Your task to perform on an android device: toggle translation in the chrome app Image 0: 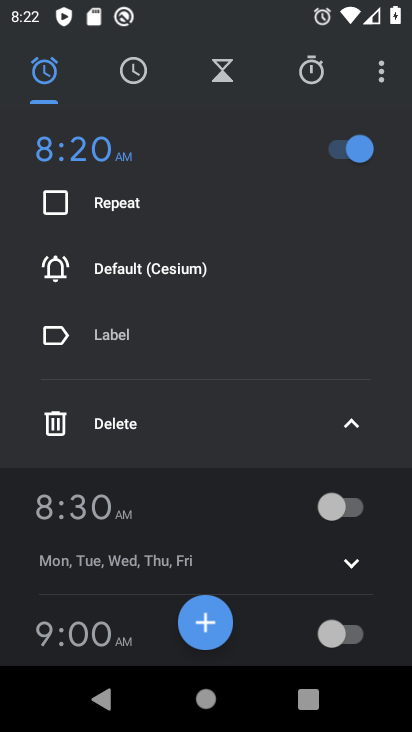
Step 0: press home button
Your task to perform on an android device: toggle translation in the chrome app Image 1: 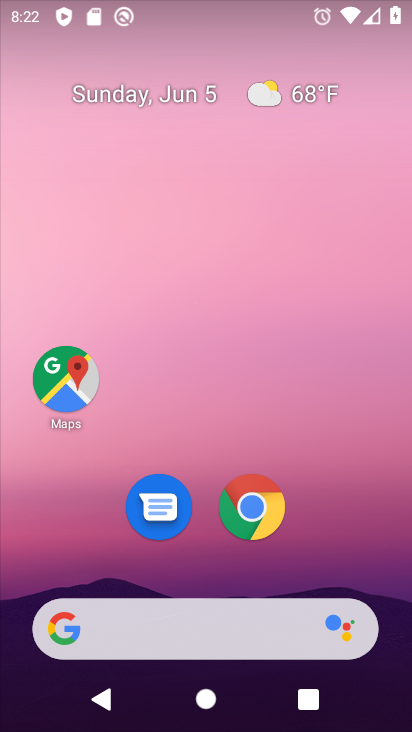
Step 1: click (255, 508)
Your task to perform on an android device: toggle translation in the chrome app Image 2: 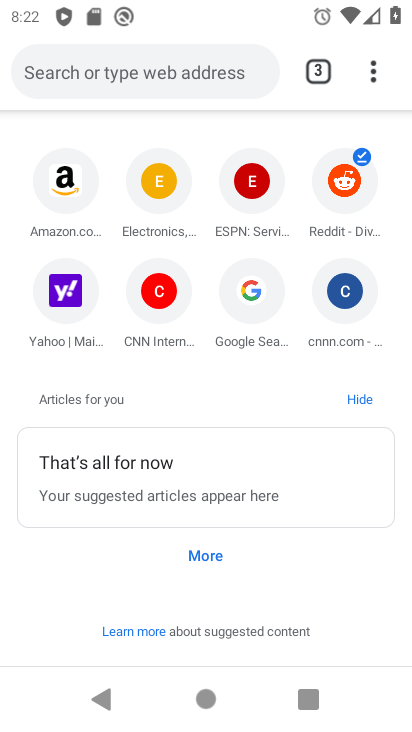
Step 2: click (375, 80)
Your task to perform on an android device: toggle translation in the chrome app Image 3: 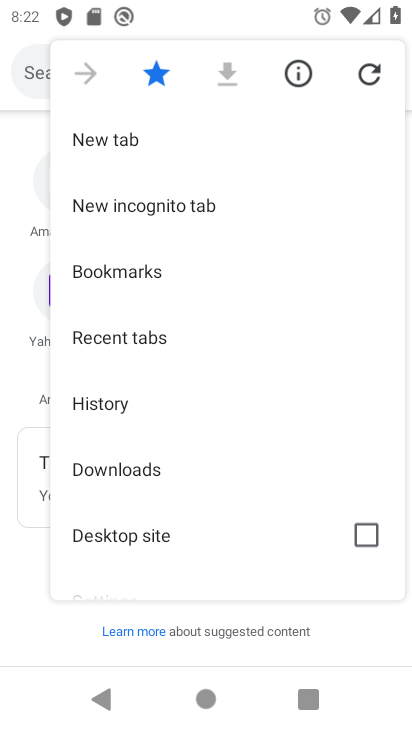
Step 3: drag from (149, 541) to (148, 146)
Your task to perform on an android device: toggle translation in the chrome app Image 4: 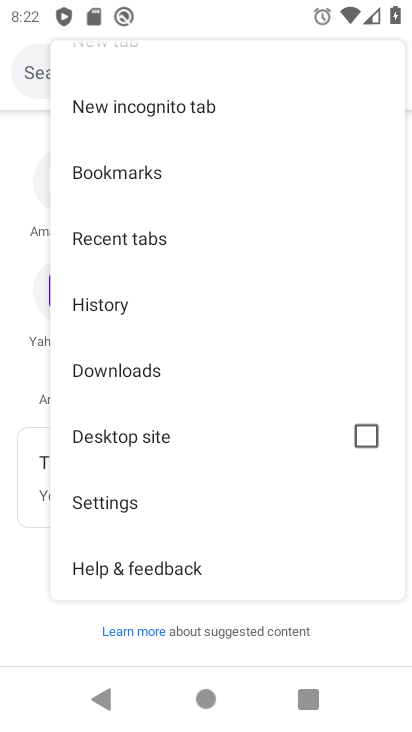
Step 4: click (83, 499)
Your task to perform on an android device: toggle translation in the chrome app Image 5: 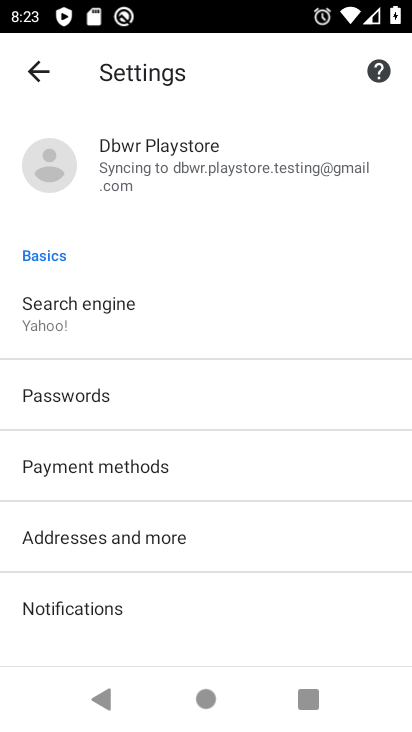
Step 5: drag from (97, 632) to (108, 270)
Your task to perform on an android device: toggle translation in the chrome app Image 6: 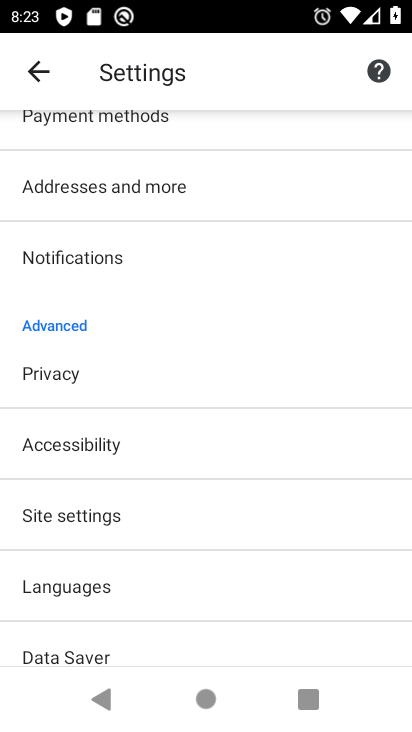
Step 6: click (91, 577)
Your task to perform on an android device: toggle translation in the chrome app Image 7: 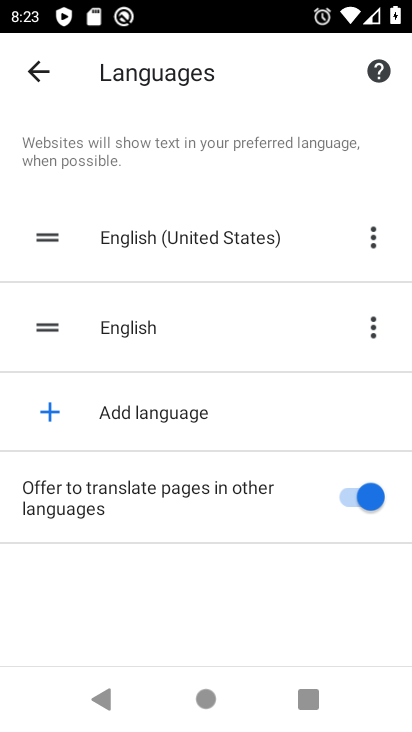
Step 7: click (353, 492)
Your task to perform on an android device: toggle translation in the chrome app Image 8: 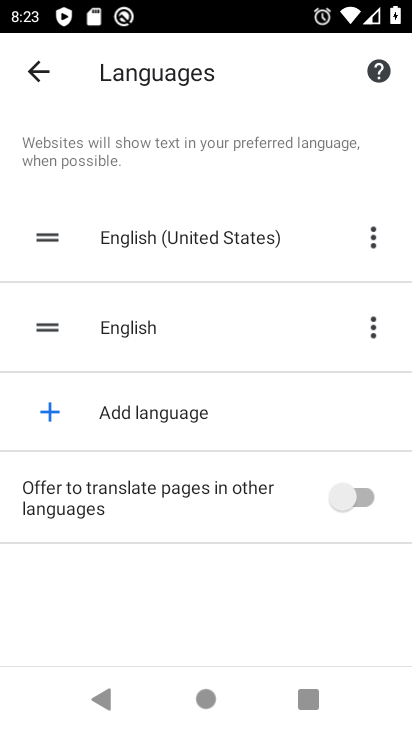
Step 8: task complete